Your task to perform on an android device: turn off wifi Image 0: 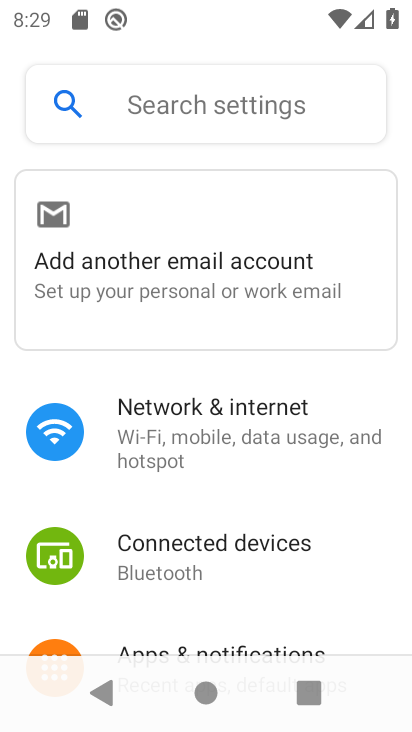
Step 0: click (206, 435)
Your task to perform on an android device: turn off wifi Image 1: 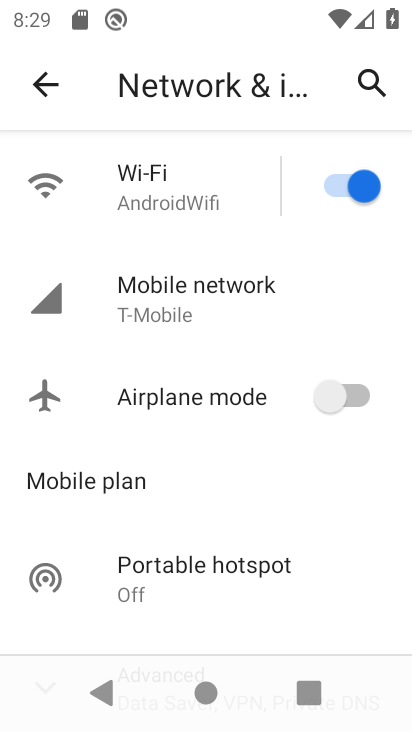
Step 1: click (335, 187)
Your task to perform on an android device: turn off wifi Image 2: 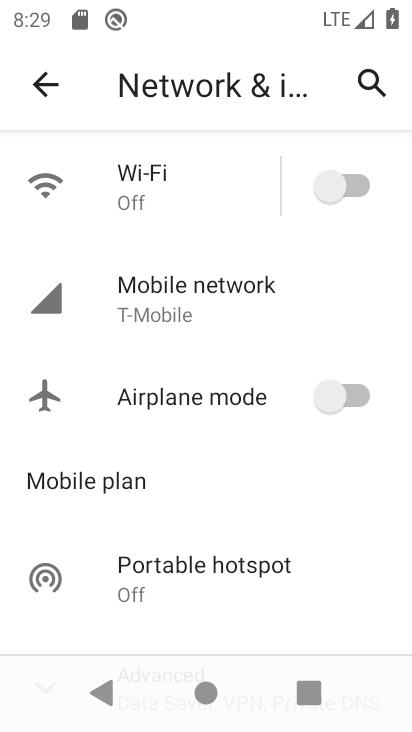
Step 2: task complete